Your task to perform on an android device: delete browsing data in the chrome app Image 0: 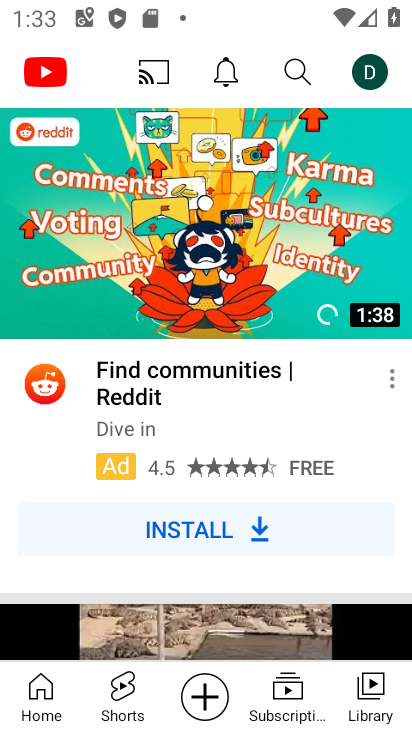
Step 0: press home button
Your task to perform on an android device: delete browsing data in the chrome app Image 1: 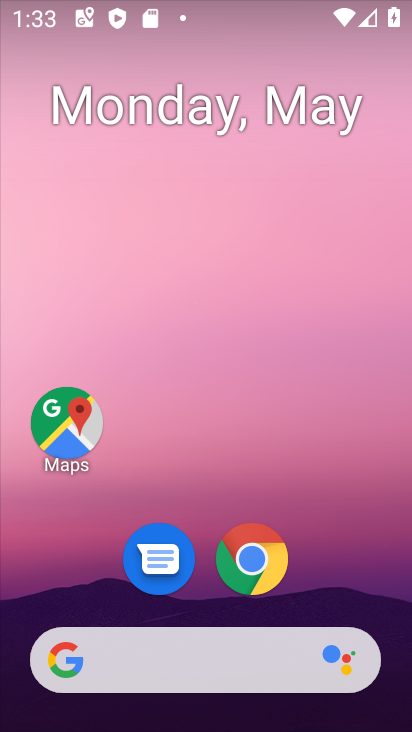
Step 1: click (235, 545)
Your task to perform on an android device: delete browsing data in the chrome app Image 2: 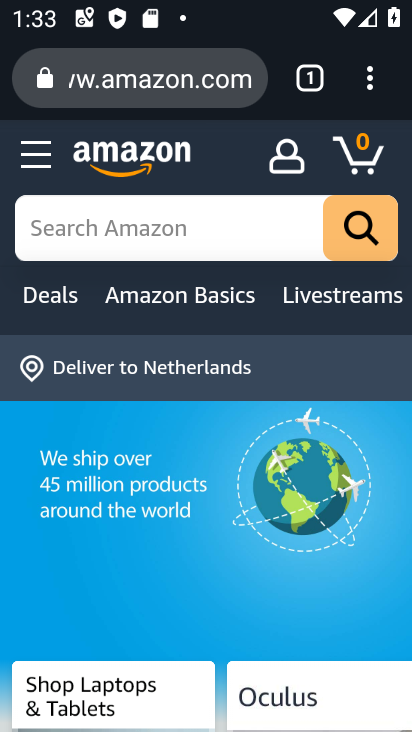
Step 2: click (371, 81)
Your task to perform on an android device: delete browsing data in the chrome app Image 3: 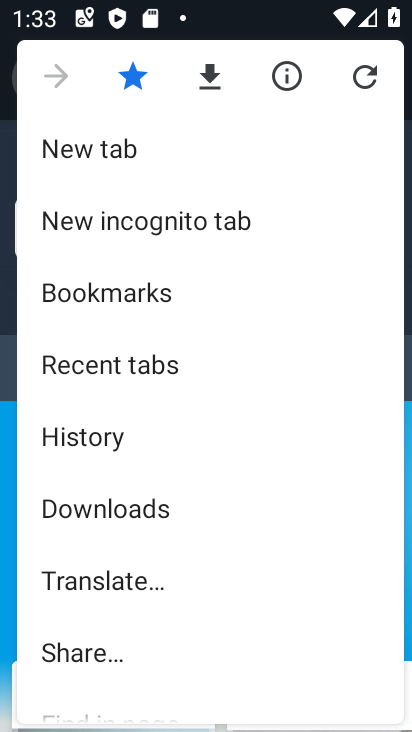
Step 3: click (90, 441)
Your task to perform on an android device: delete browsing data in the chrome app Image 4: 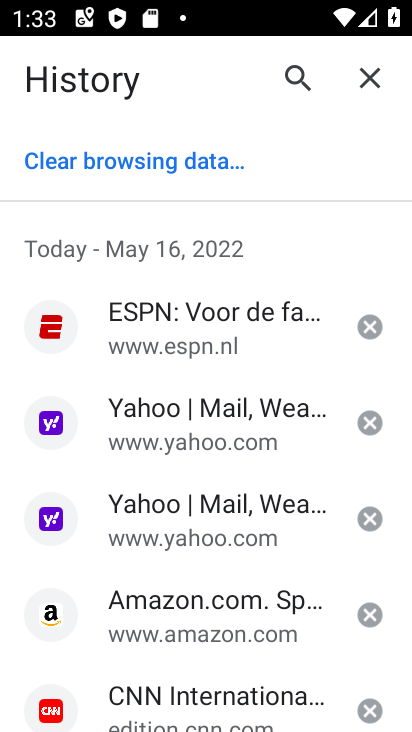
Step 4: click (185, 158)
Your task to perform on an android device: delete browsing data in the chrome app Image 5: 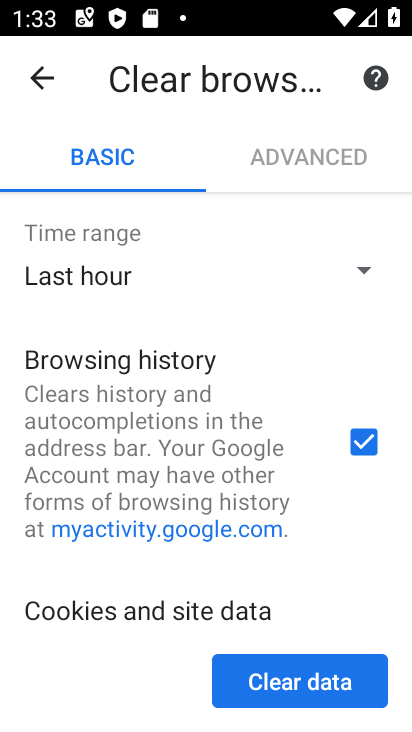
Step 5: click (271, 688)
Your task to perform on an android device: delete browsing data in the chrome app Image 6: 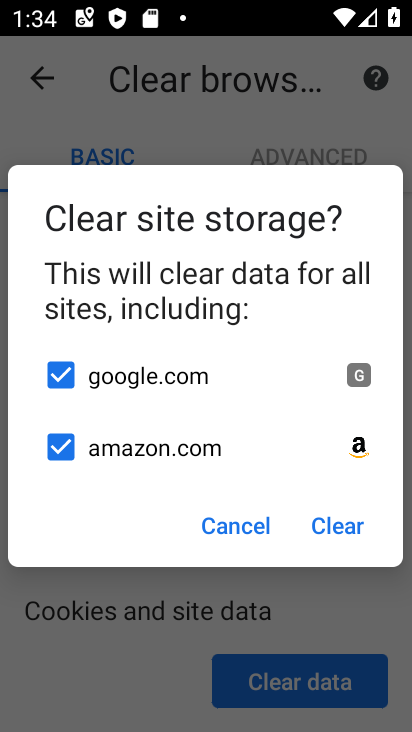
Step 6: click (344, 526)
Your task to perform on an android device: delete browsing data in the chrome app Image 7: 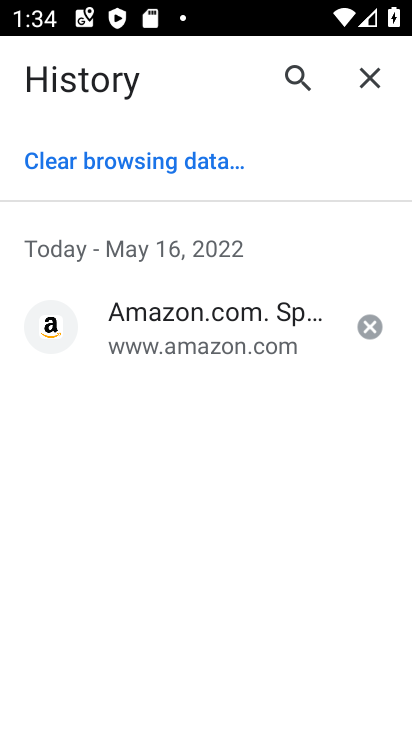
Step 7: task complete